Your task to perform on an android device: change keyboard looks Image 0: 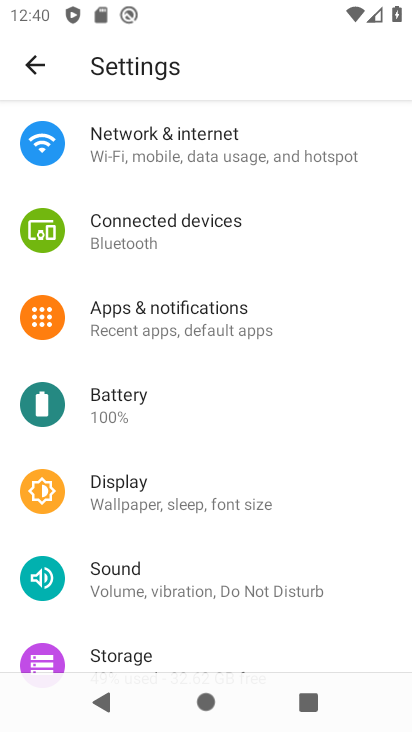
Step 0: press home button
Your task to perform on an android device: change keyboard looks Image 1: 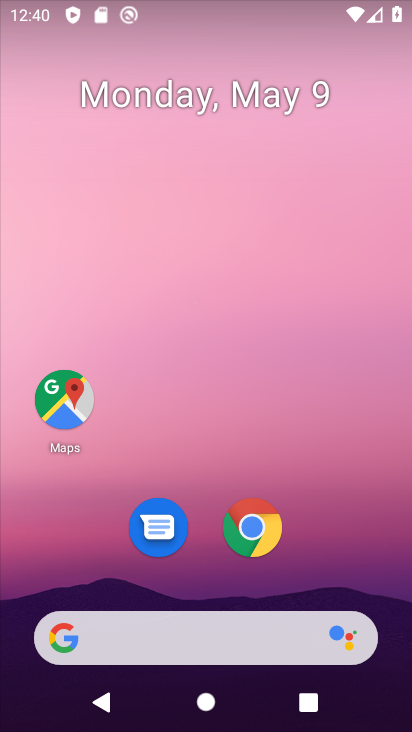
Step 1: drag from (206, 593) to (224, 43)
Your task to perform on an android device: change keyboard looks Image 2: 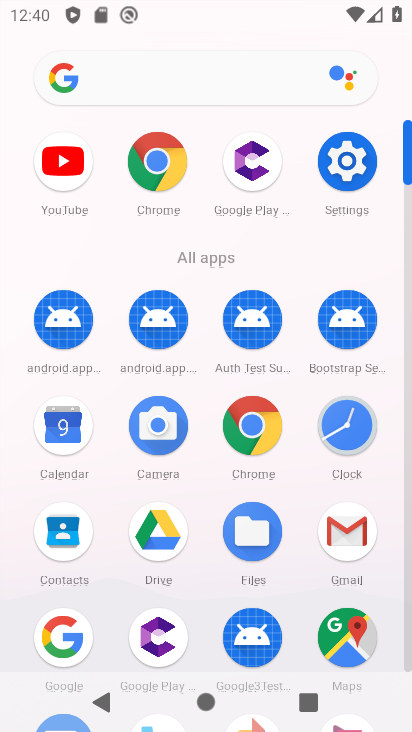
Step 2: click (337, 162)
Your task to perform on an android device: change keyboard looks Image 3: 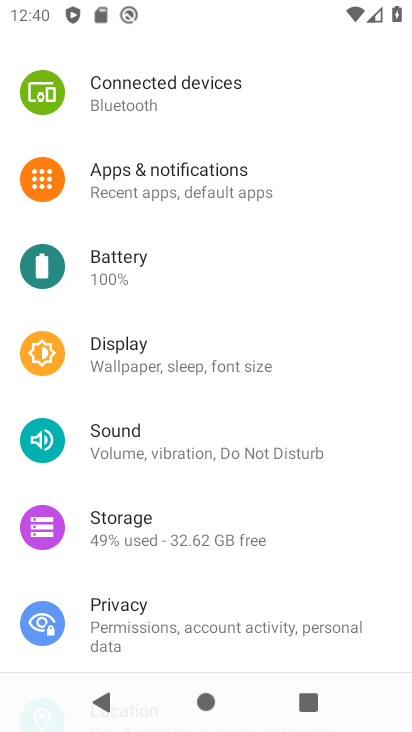
Step 3: drag from (183, 609) to (192, 243)
Your task to perform on an android device: change keyboard looks Image 4: 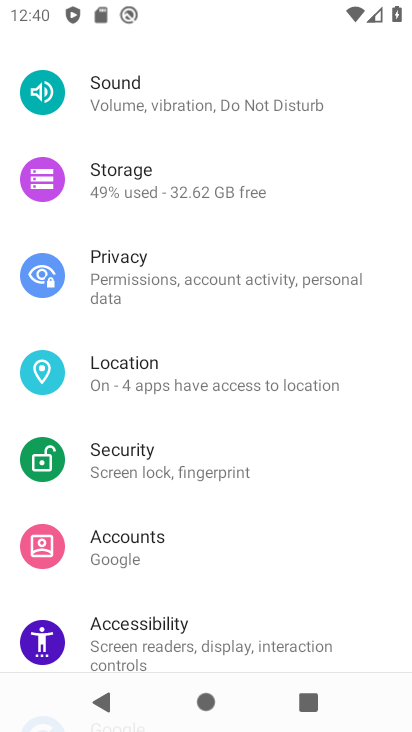
Step 4: drag from (203, 514) to (164, 176)
Your task to perform on an android device: change keyboard looks Image 5: 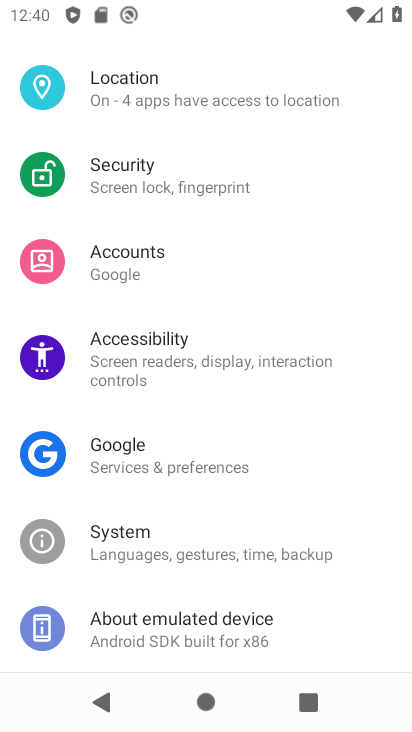
Step 5: click (167, 566)
Your task to perform on an android device: change keyboard looks Image 6: 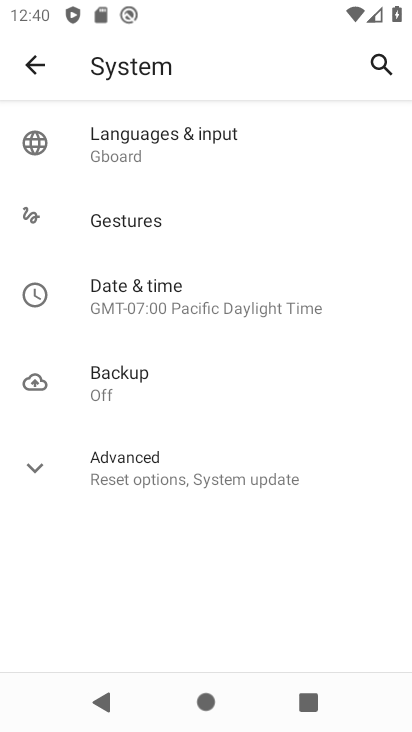
Step 6: click (177, 144)
Your task to perform on an android device: change keyboard looks Image 7: 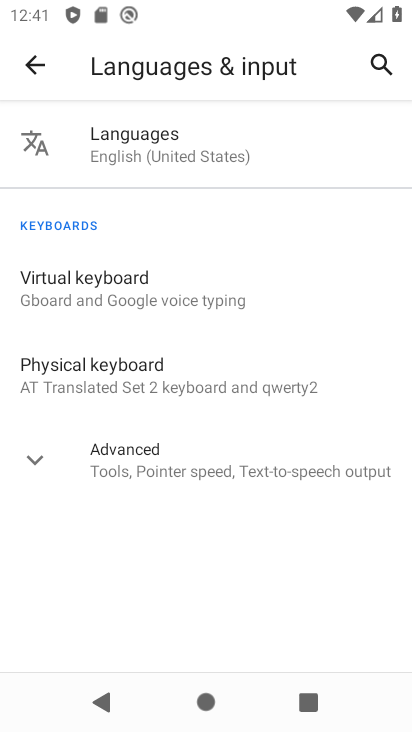
Step 7: click (115, 283)
Your task to perform on an android device: change keyboard looks Image 8: 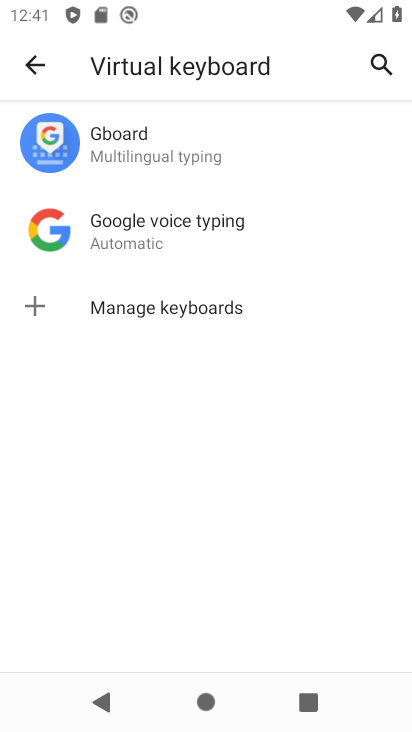
Step 8: click (186, 153)
Your task to perform on an android device: change keyboard looks Image 9: 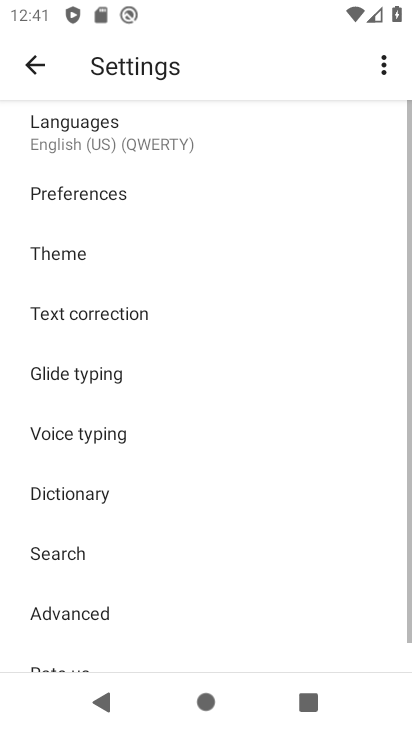
Step 9: click (96, 263)
Your task to perform on an android device: change keyboard looks Image 10: 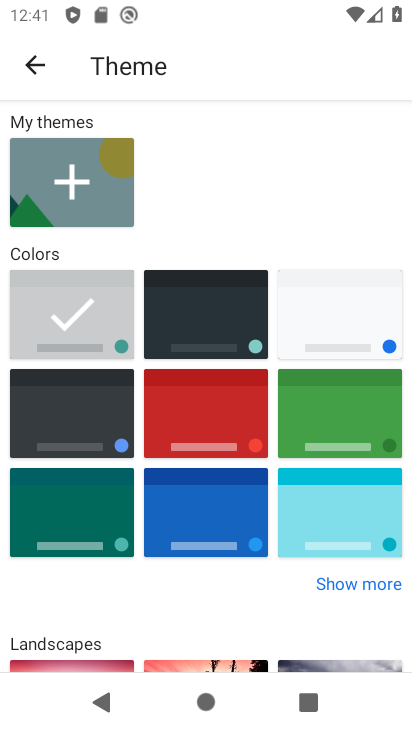
Step 10: click (276, 411)
Your task to perform on an android device: change keyboard looks Image 11: 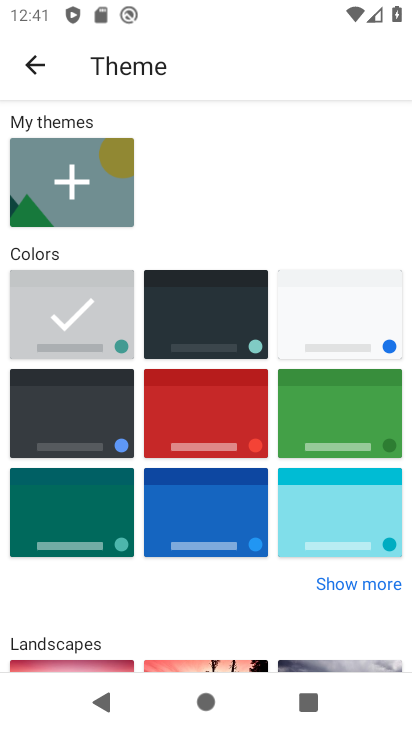
Step 11: click (322, 425)
Your task to perform on an android device: change keyboard looks Image 12: 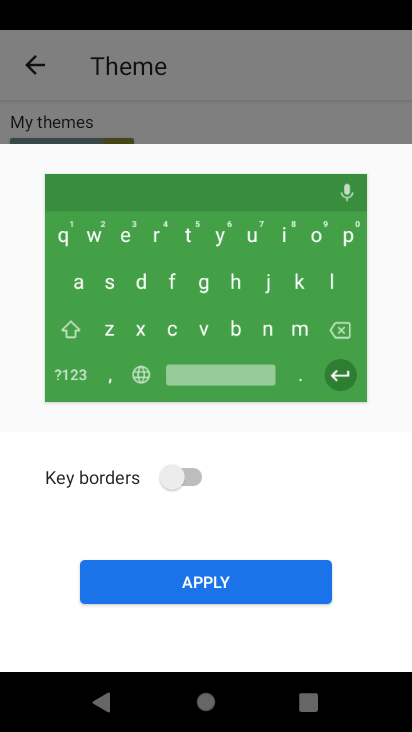
Step 12: click (232, 579)
Your task to perform on an android device: change keyboard looks Image 13: 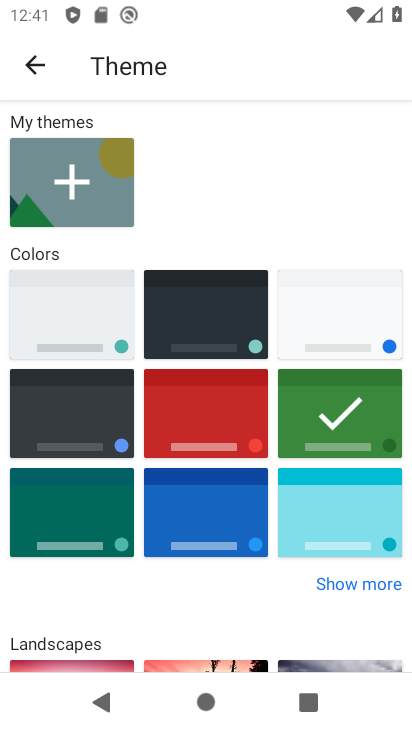
Step 13: task complete